Your task to perform on an android device: toggle notifications settings in the gmail app Image 0: 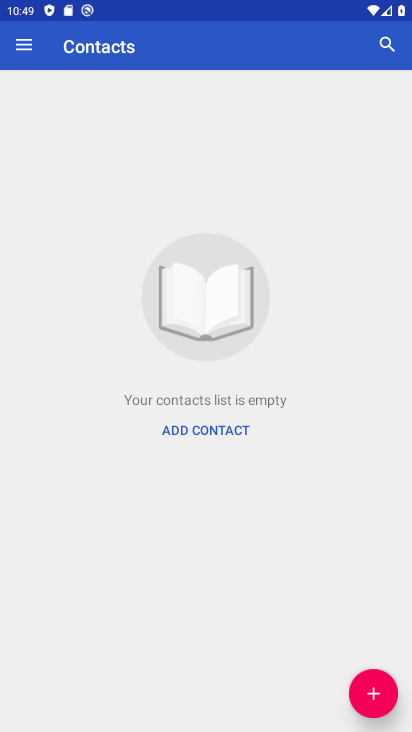
Step 0: press home button
Your task to perform on an android device: toggle notifications settings in the gmail app Image 1: 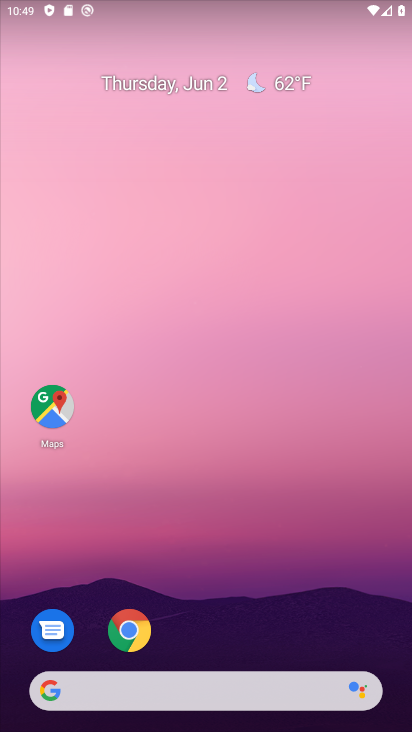
Step 1: drag from (141, 686) to (230, 162)
Your task to perform on an android device: toggle notifications settings in the gmail app Image 2: 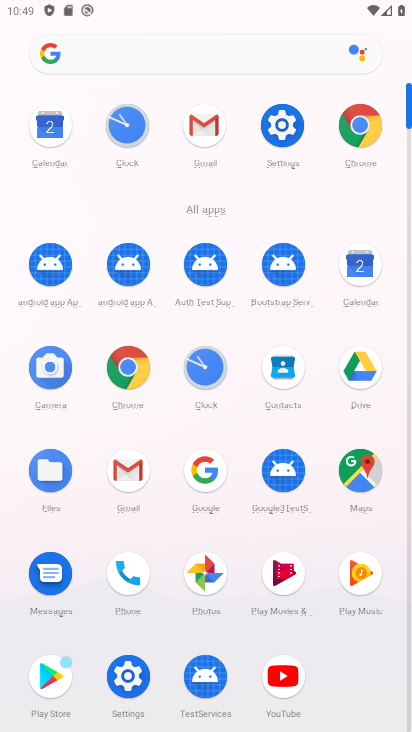
Step 2: click (199, 129)
Your task to perform on an android device: toggle notifications settings in the gmail app Image 3: 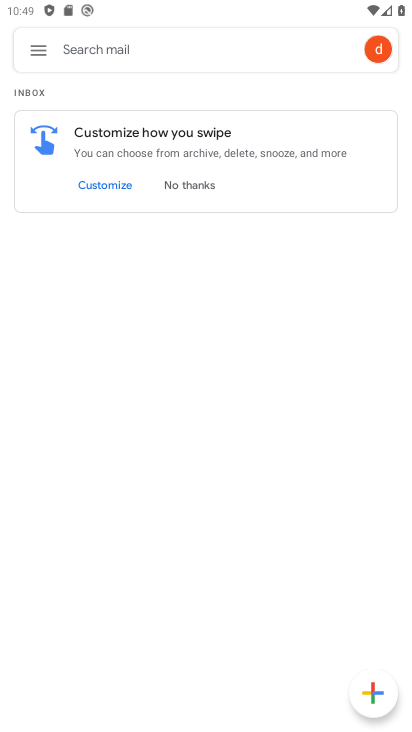
Step 3: click (39, 47)
Your task to perform on an android device: toggle notifications settings in the gmail app Image 4: 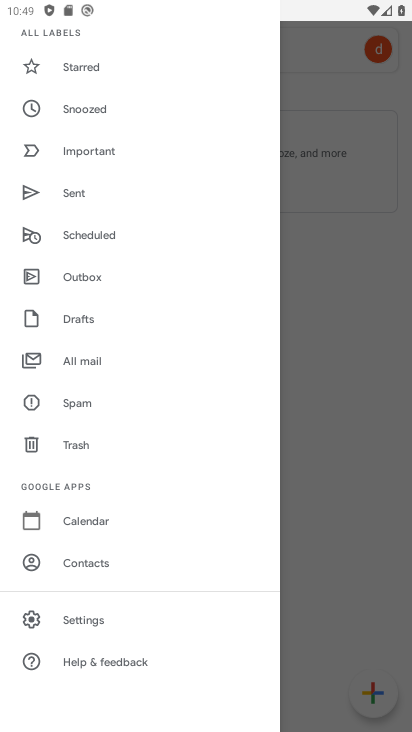
Step 4: click (88, 618)
Your task to perform on an android device: toggle notifications settings in the gmail app Image 5: 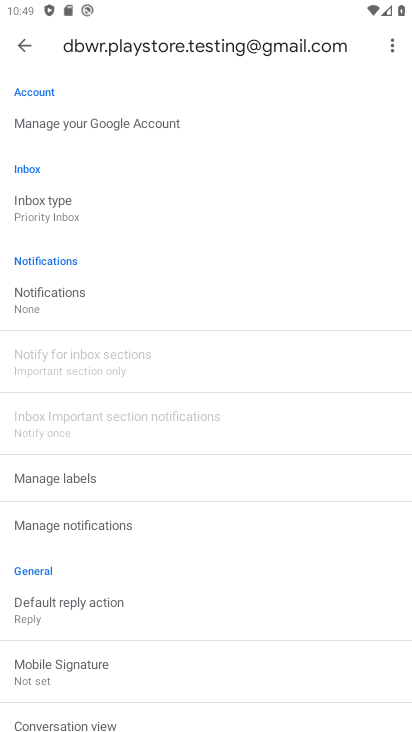
Step 5: click (38, 306)
Your task to perform on an android device: toggle notifications settings in the gmail app Image 6: 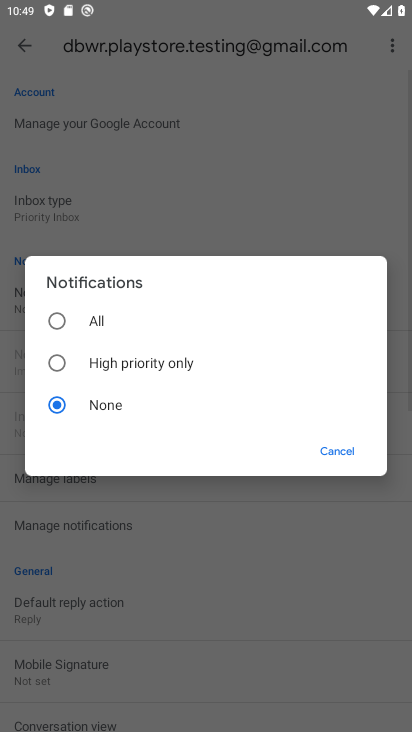
Step 6: click (62, 322)
Your task to perform on an android device: toggle notifications settings in the gmail app Image 7: 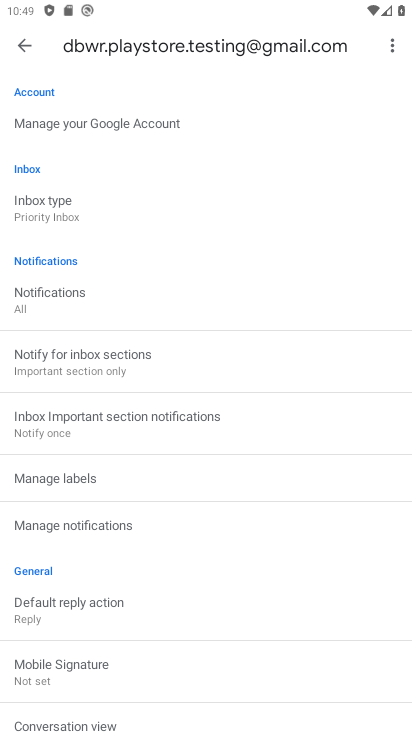
Step 7: task complete